Your task to perform on an android device: Show me recent news Image 0: 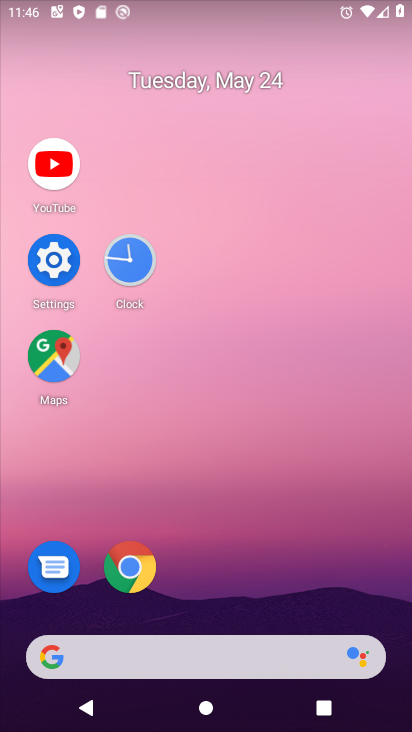
Step 0: drag from (230, 630) to (296, 119)
Your task to perform on an android device: Show me recent news Image 1: 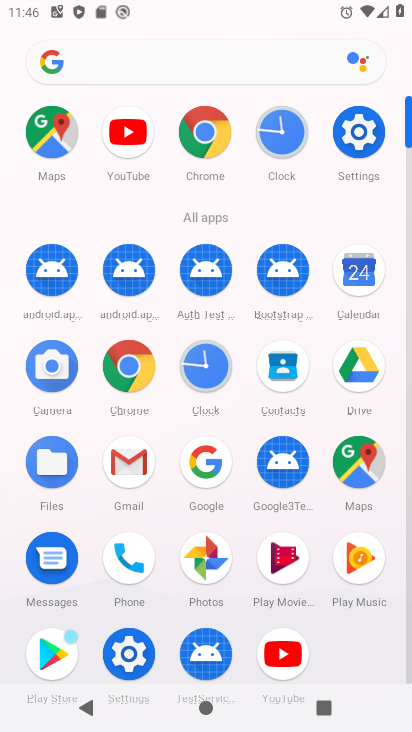
Step 1: drag from (211, 466) to (143, 368)
Your task to perform on an android device: Show me recent news Image 2: 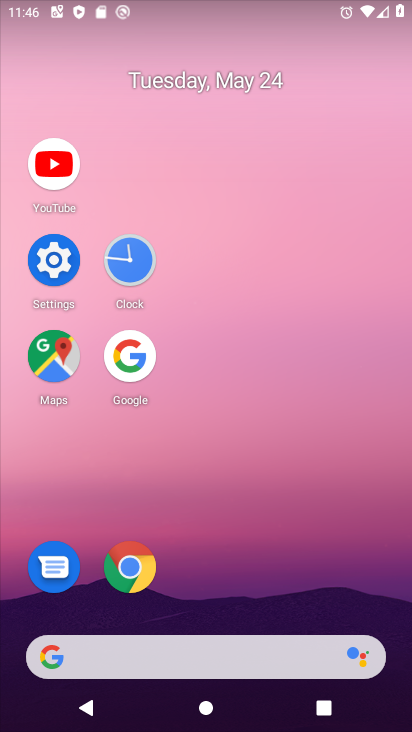
Step 2: click (142, 366)
Your task to perform on an android device: Show me recent news Image 3: 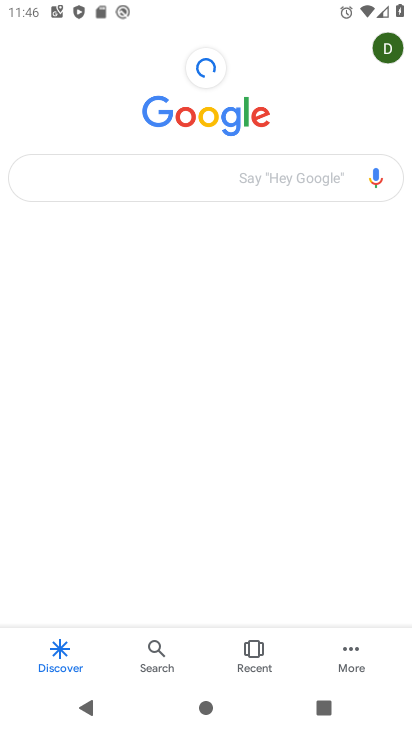
Step 3: click (118, 165)
Your task to perform on an android device: Show me recent news Image 4: 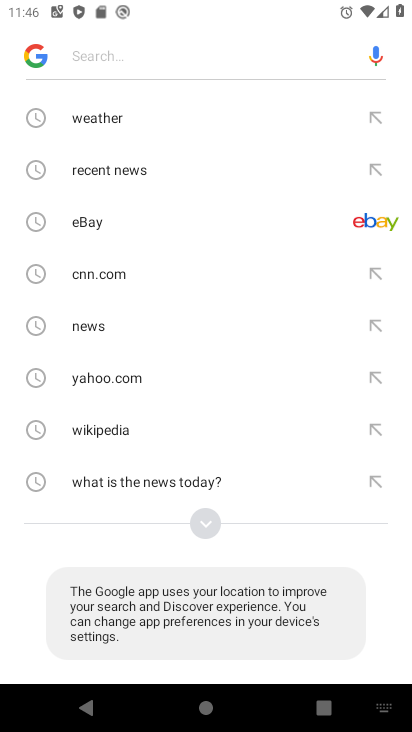
Step 4: click (118, 165)
Your task to perform on an android device: Show me recent news Image 5: 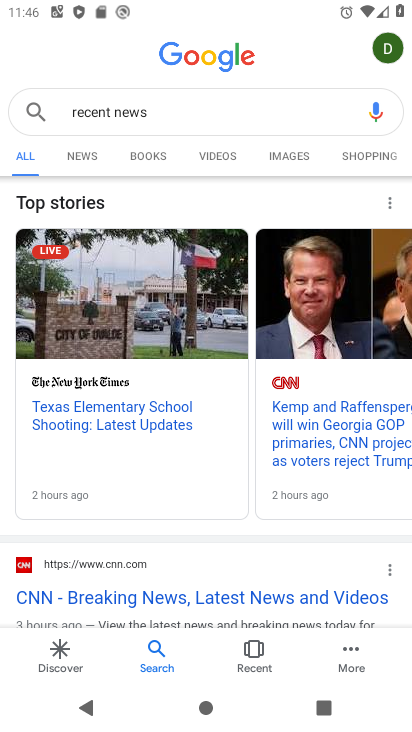
Step 5: task complete